Your task to perform on an android device: Open eBay Image 0: 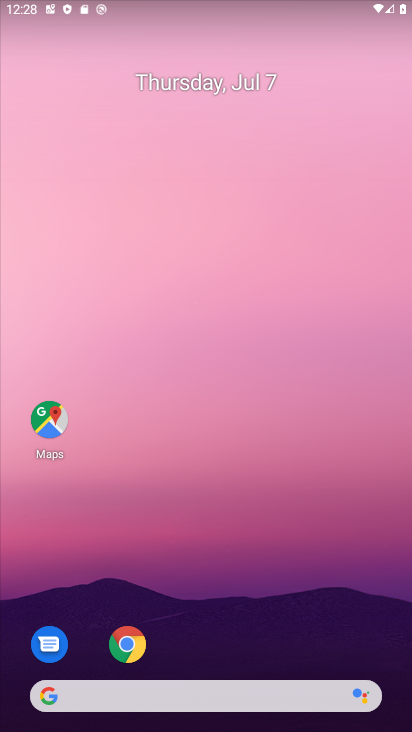
Step 0: drag from (249, 647) to (247, 207)
Your task to perform on an android device: Open eBay Image 1: 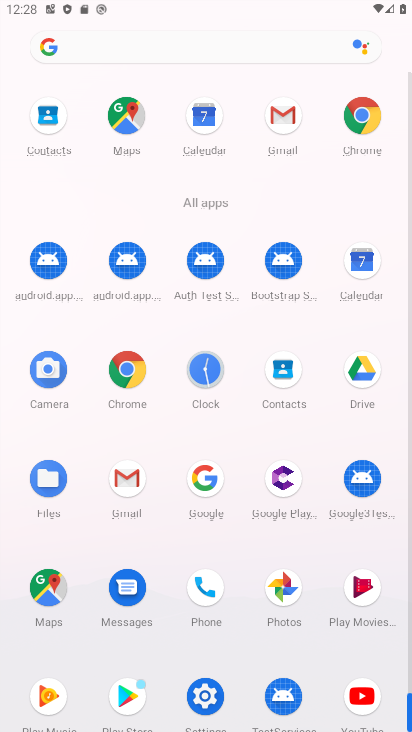
Step 1: click (127, 361)
Your task to perform on an android device: Open eBay Image 2: 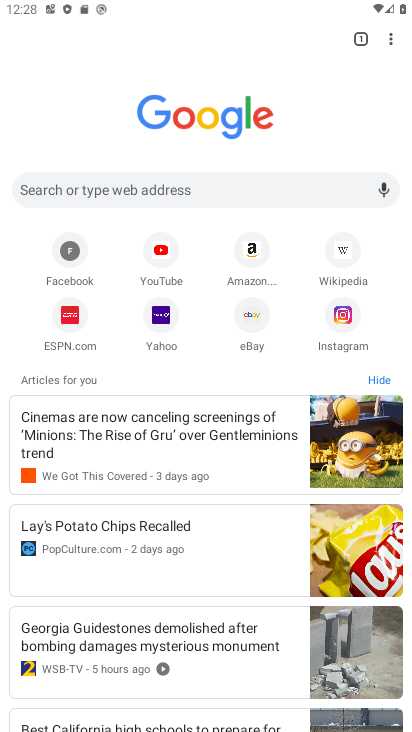
Step 2: click (107, 191)
Your task to perform on an android device: Open eBay Image 3: 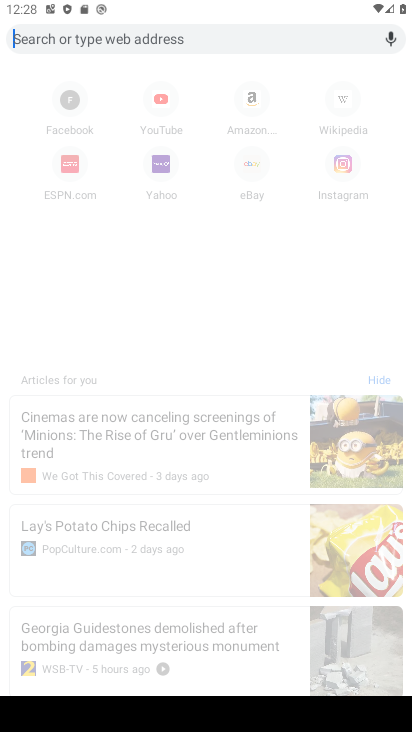
Step 3: type "Open eBay"
Your task to perform on an android device: Open eBay Image 4: 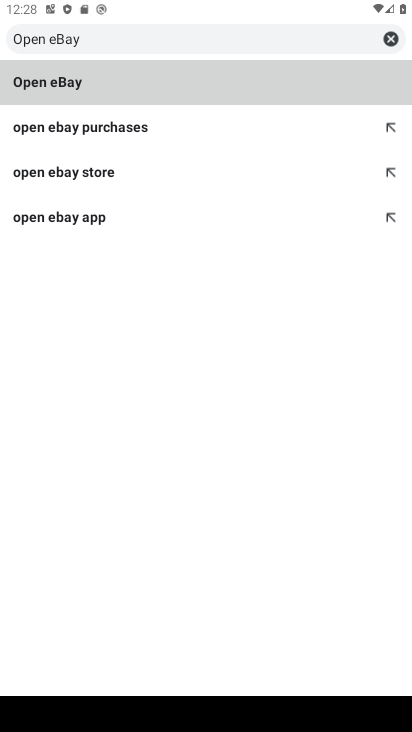
Step 4: click (54, 83)
Your task to perform on an android device: Open eBay Image 5: 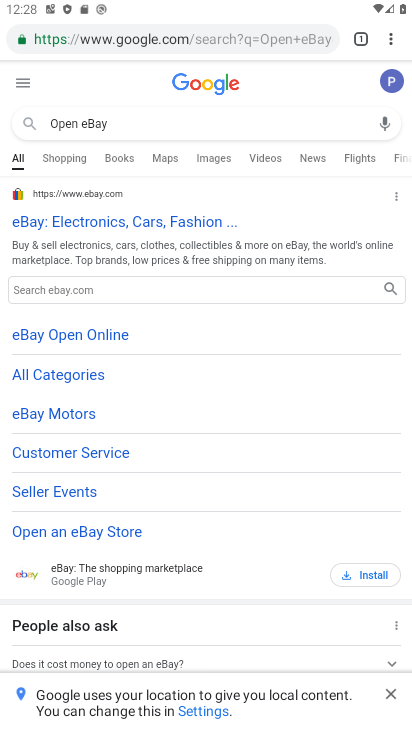
Step 5: click (30, 213)
Your task to perform on an android device: Open eBay Image 6: 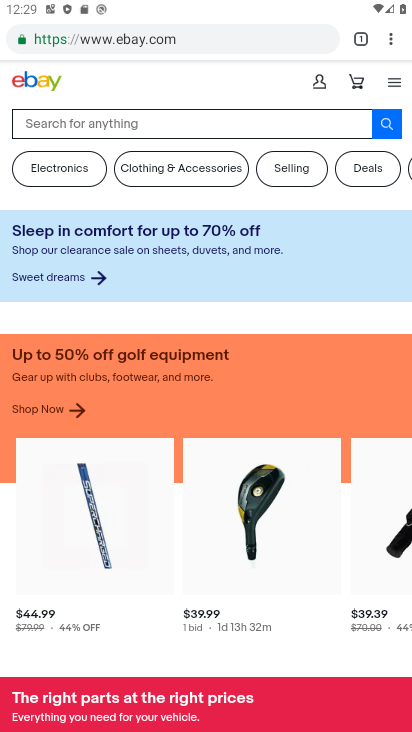
Step 6: task complete